Your task to perform on an android device: open wifi settings Image 0: 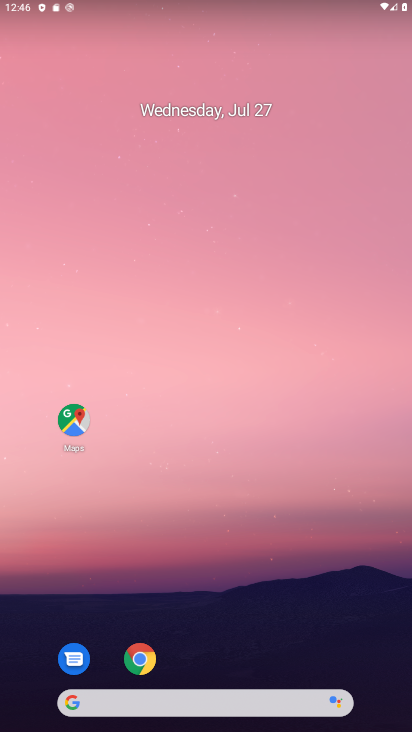
Step 0: drag from (330, 663) to (248, 78)
Your task to perform on an android device: open wifi settings Image 1: 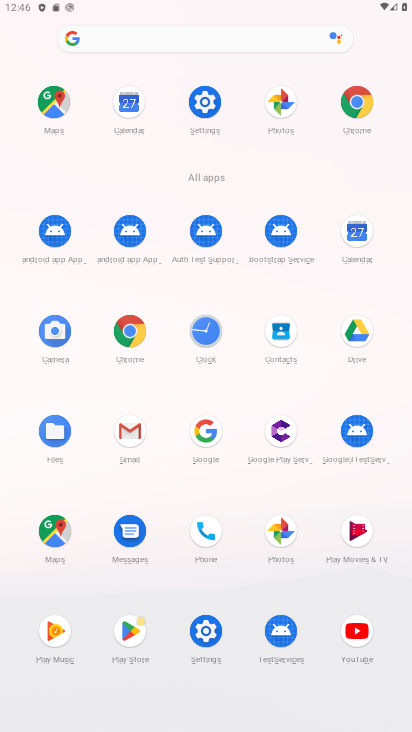
Step 1: click (205, 111)
Your task to perform on an android device: open wifi settings Image 2: 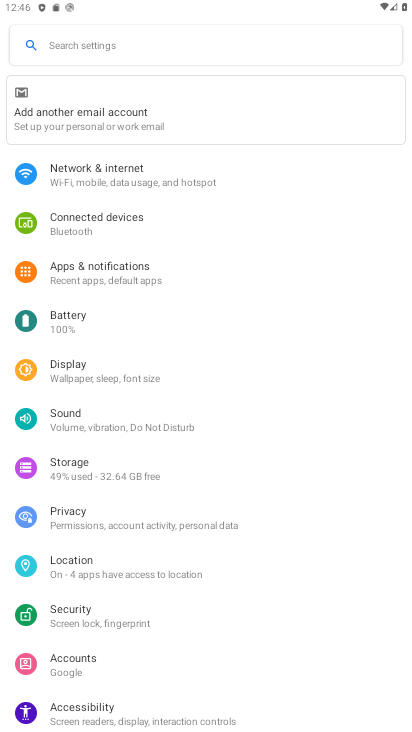
Step 2: click (138, 172)
Your task to perform on an android device: open wifi settings Image 3: 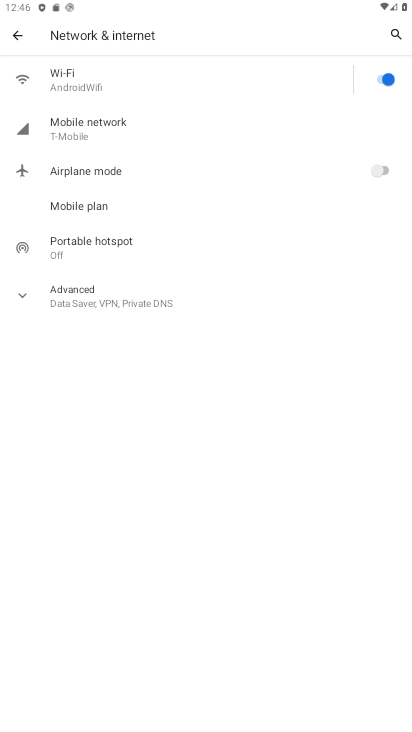
Step 3: click (154, 87)
Your task to perform on an android device: open wifi settings Image 4: 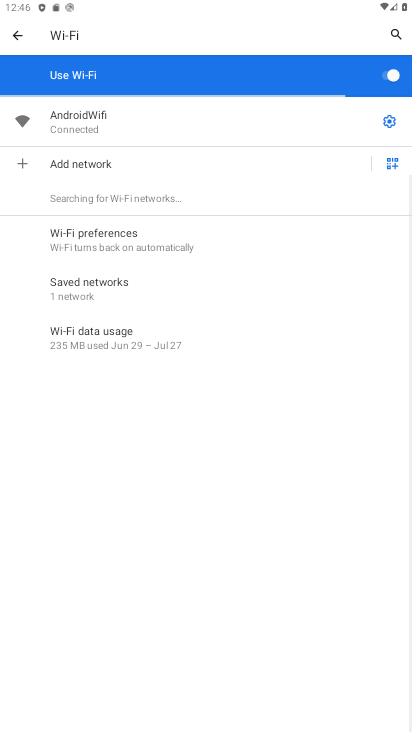
Step 4: click (390, 119)
Your task to perform on an android device: open wifi settings Image 5: 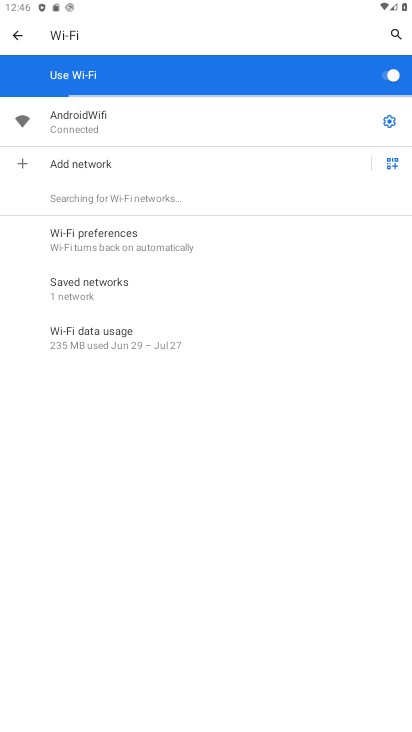
Step 5: click (391, 120)
Your task to perform on an android device: open wifi settings Image 6: 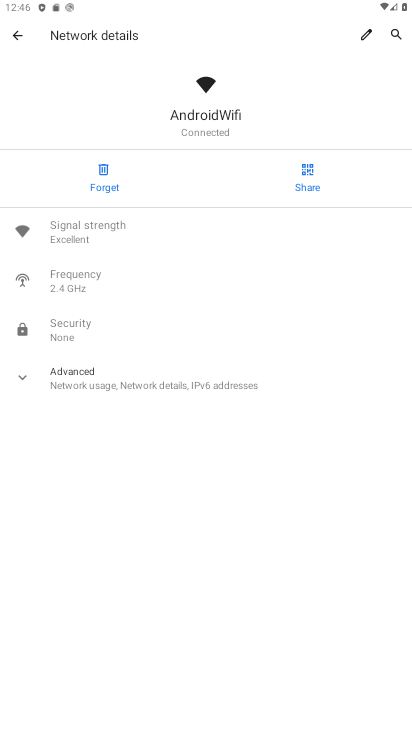
Step 6: task complete